Your task to perform on an android device: manage bookmarks in the chrome app Image 0: 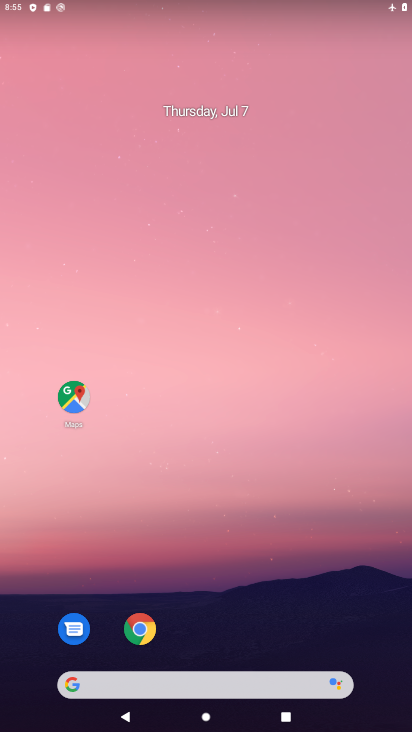
Step 0: click (138, 630)
Your task to perform on an android device: manage bookmarks in the chrome app Image 1: 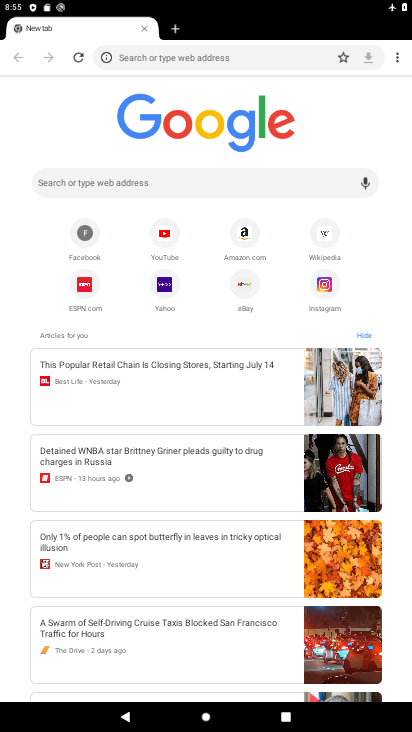
Step 1: click (395, 58)
Your task to perform on an android device: manage bookmarks in the chrome app Image 2: 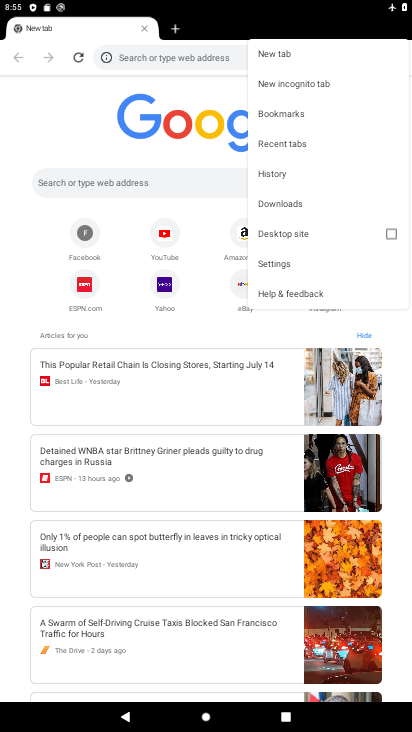
Step 2: click (284, 110)
Your task to perform on an android device: manage bookmarks in the chrome app Image 3: 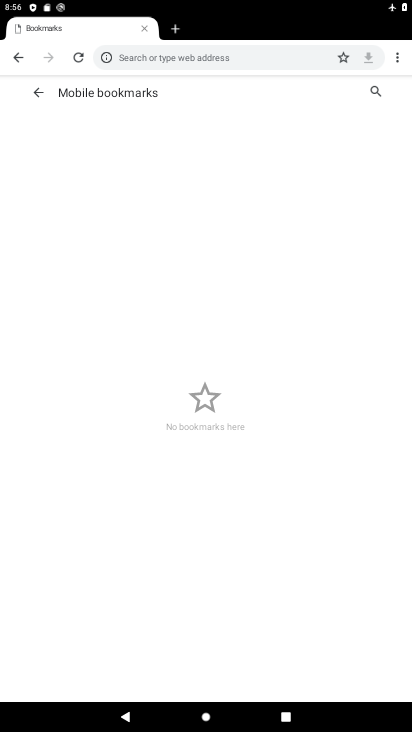
Step 3: task complete